Your task to perform on an android device: change the clock style Image 0: 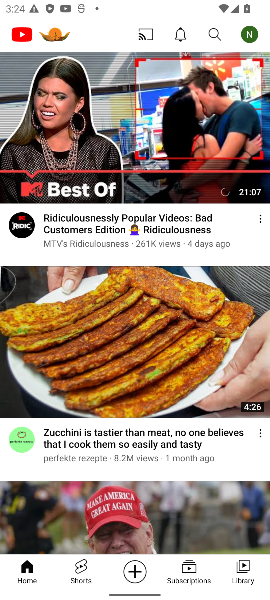
Step 0: press back button
Your task to perform on an android device: change the clock style Image 1: 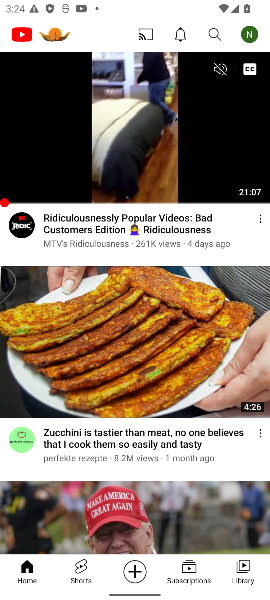
Step 1: press back button
Your task to perform on an android device: change the clock style Image 2: 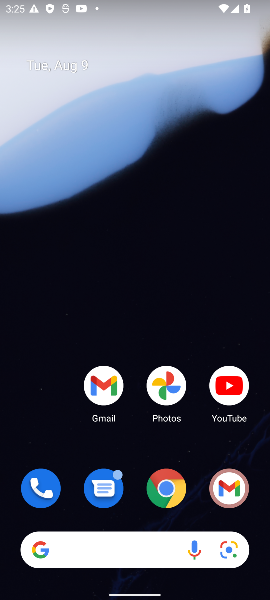
Step 2: drag from (193, 351) to (179, 98)
Your task to perform on an android device: change the clock style Image 3: 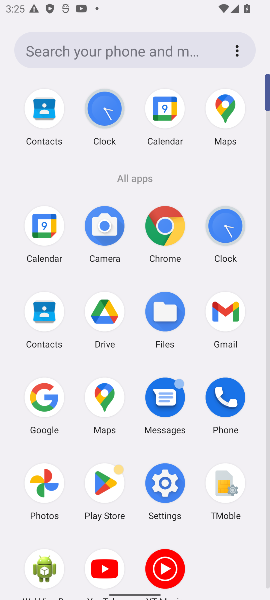
Step 3: click (230, 226)
Your task to perform on an android device: change the clock style Image 4: 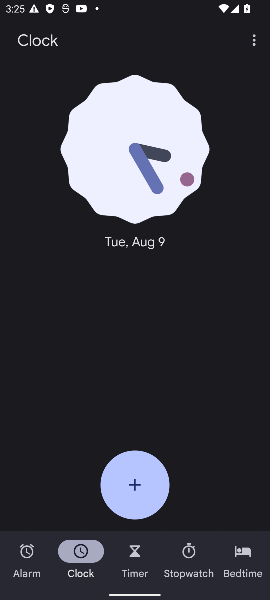
Step 4: click (256, 48)
Your task to perform on an android device: change the clock style Image 5: 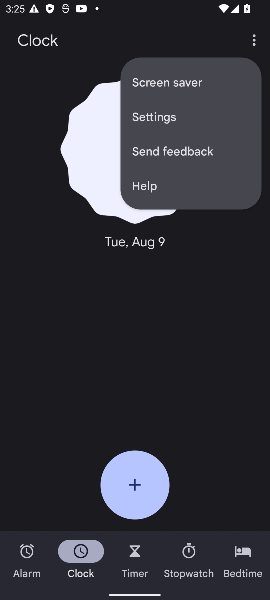
Step 5: click (175, 115)
Your task to perform on an android device: change the clock style Image 6: 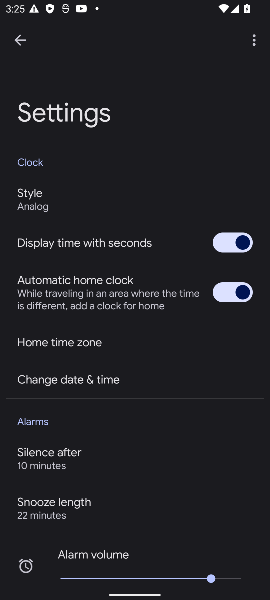
Step 6: click (98, 203)
Your task to perform on an android device: change the clock style Image 7: 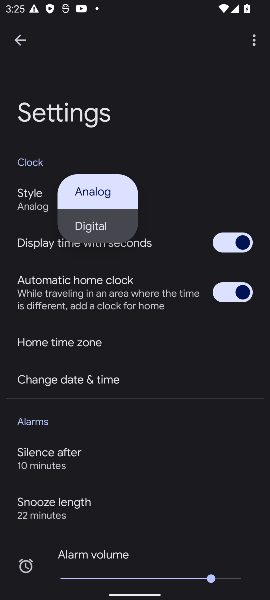
Step 7: click (100, 223)
Your task to perform on an android device: change the clock style Image 8: 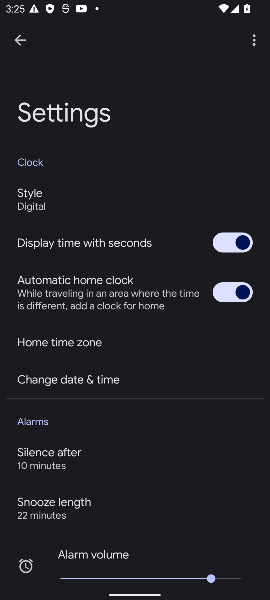
Step 8: task complete